Your task to perform on an android device: Go to Google Image 0: 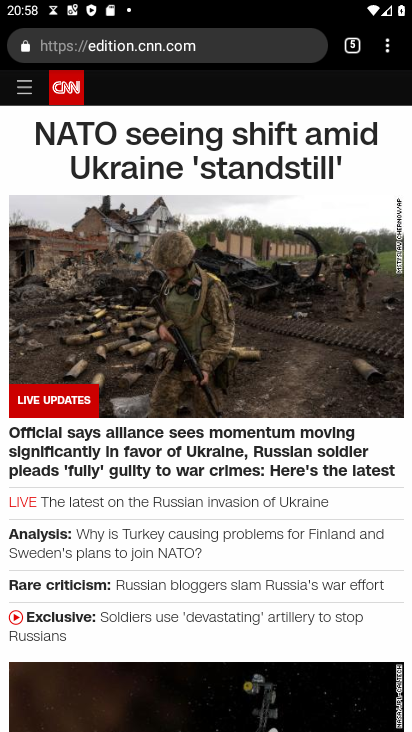
Step 0: press home button
Your task to perform on an android device: Go to Google Image 1: 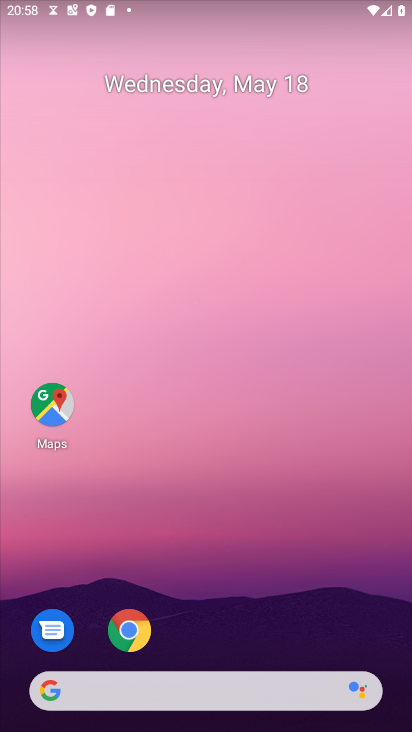
Step 1: drag from (144, 695) to (274, 223)
Your task to perform on an android device: Go to Google Image 2: 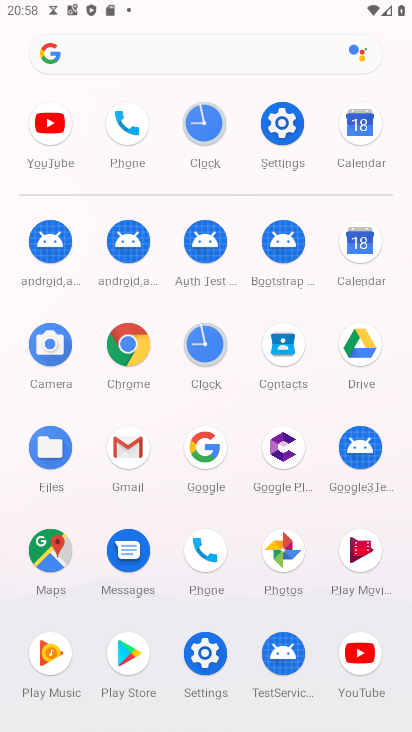
Step 2: click (207, 450)
Your task to perform on an android device: Go to Google Image 3: 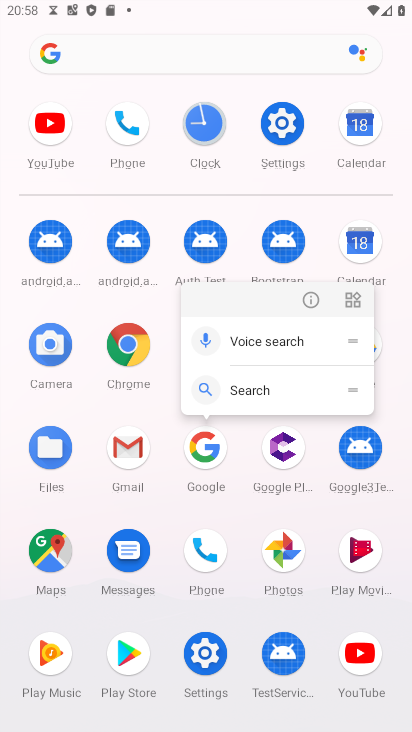
Step 3: click (214, 443)
Your task to perform on an android device: Go to Google Image 4: 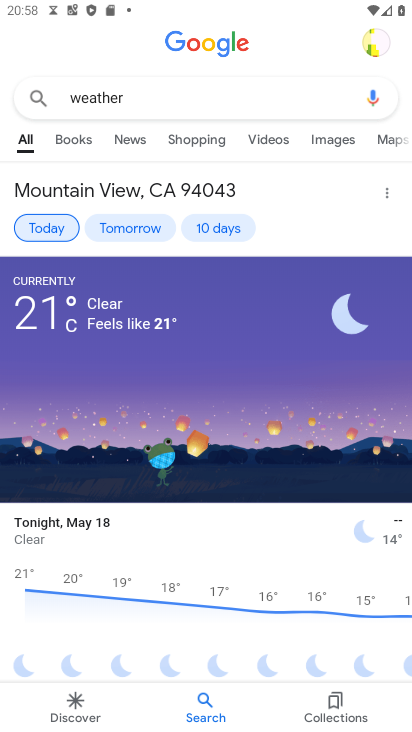
Step 4: click (191, 712)
Your task to perform on an android device: Go to Google Image 5: 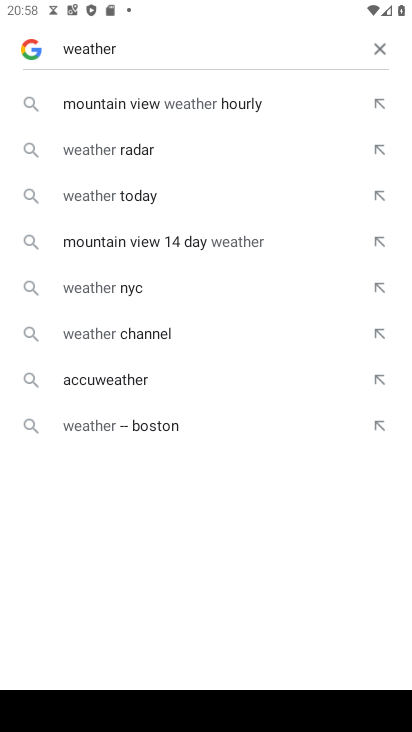
Step 5: task complete